Your task to perform on an android device: install app "Speedtest by Ookla" Image 0: 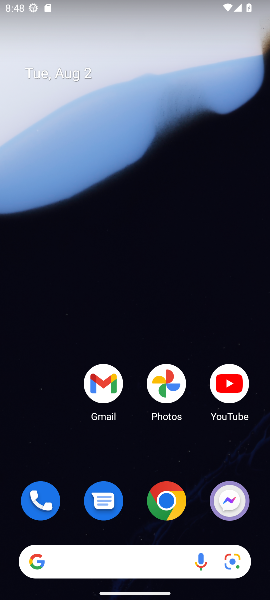
Step 0: drag from (143, 512) to (143, 117)
Your task to perform on an android device: install app "Speedtest by Ookla" Image 1: 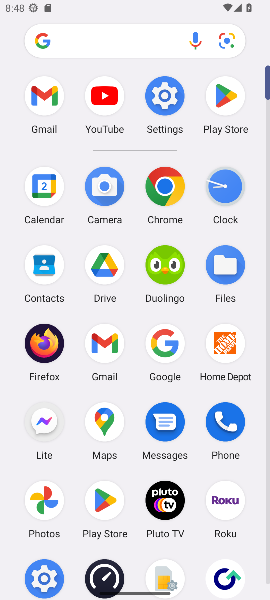
Step 1: click (225, 97)
Your task to perform on an android device: install app "Speedtest by Ookla" Image 2: 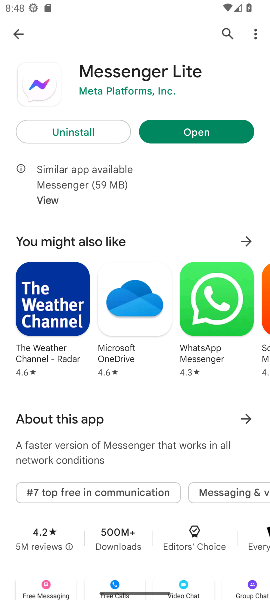
Step 2: click (227, 38)
Your task to perform on an android device: install app "Speedtest by Ookla" Image 3: 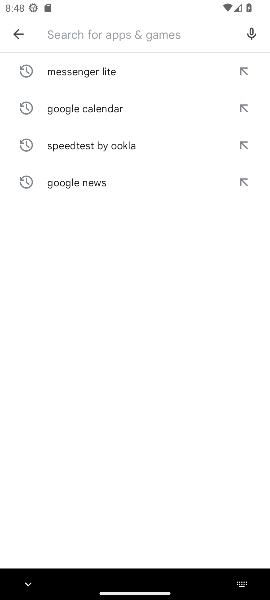
Step 3: type "Speedtest by Ookla"
Your task to perform on an android device: install app "Speedtest by Ookla" Image 4: 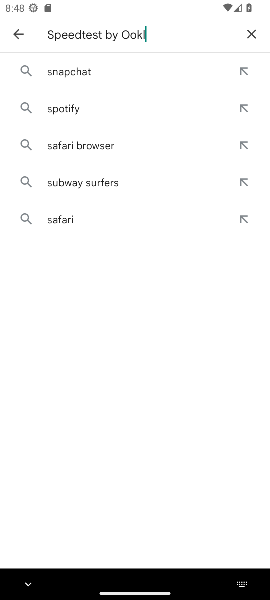
Step 4: type ""
Your task to perform on an android device: install app "Speedtest by Ookla" Image 5: 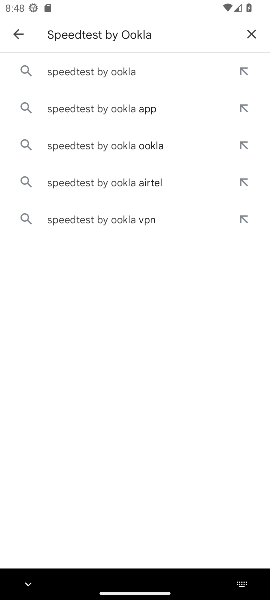
Step 5: click (150, 71)
Your task to perform on an android device: install app "Speedtest by Ookla" Image 6: 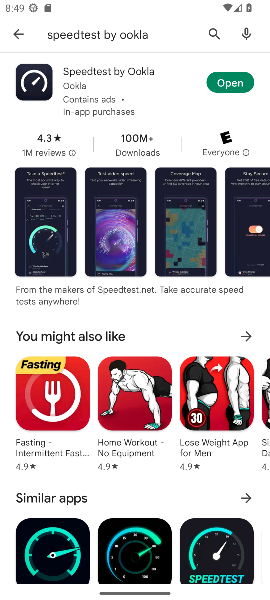
Step 6: click (98, 79)
Your task to perform on an android device: install app "Speedtest by Ookla" Image 7: 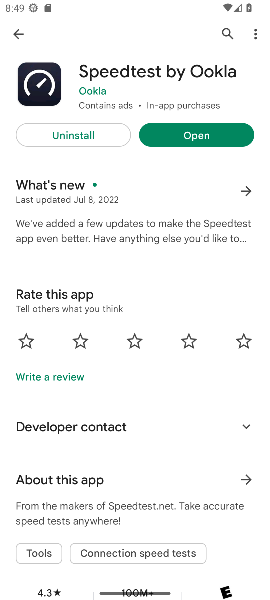
Step 7: click (171, 127)
Your task to perform on an android device: install app "Speedtest by Ookla" Image 8: 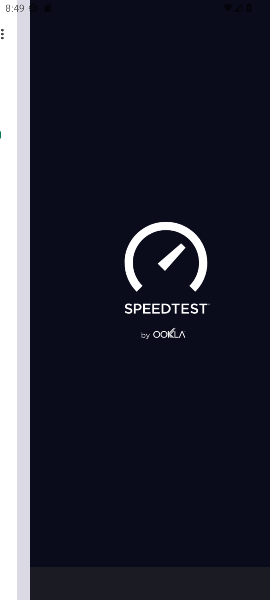
Step 8: task complete